Your task to perform on an android device: Go to wifi settings Image 0: 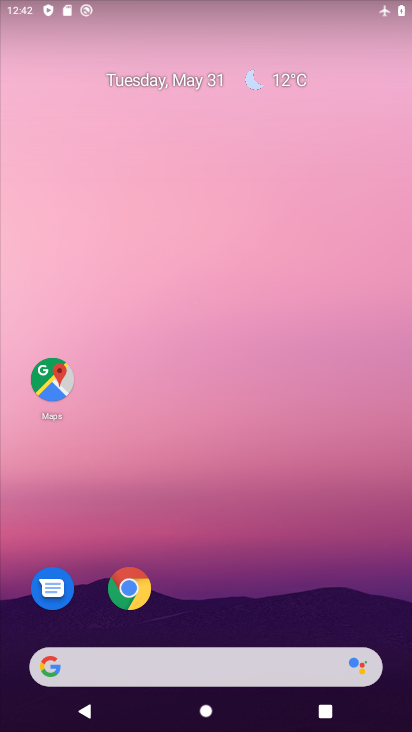
Step 0: drag from (383, 658) to (334, 67)
Your task to perform on an android device: Go to wifi settings Image 1: 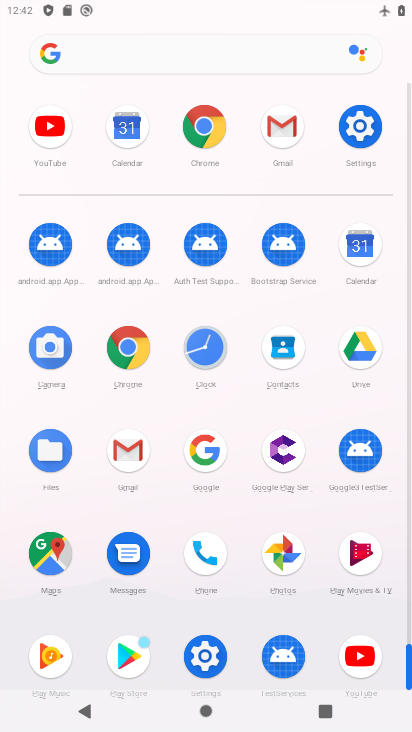
Step 1: click (367, 135)
Your task to perform on an android device: Go to wifi settings Image 2: 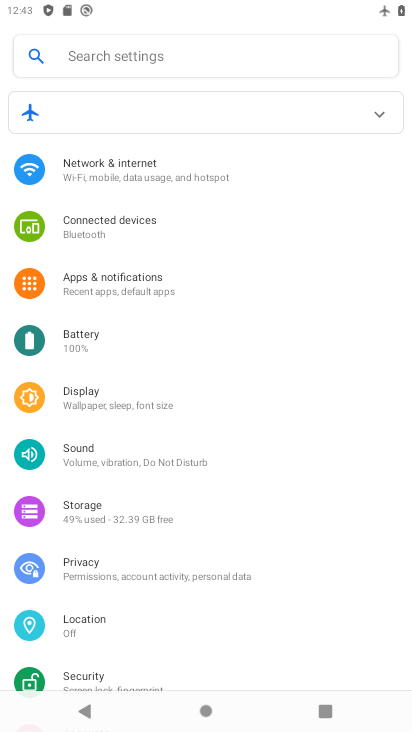
Step 2: click (112, 169)
Your task to perform on an android device: Go to wifi settings Image 3: 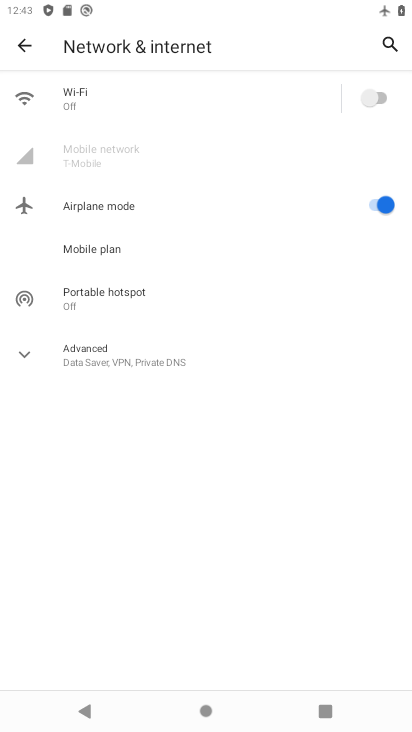
Step 3: click (152, 109)
Your task to perform on an android device: Go to wifi settings Image 4: 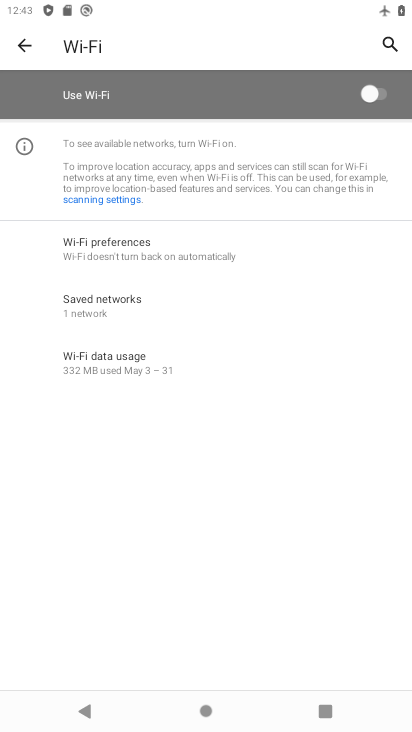
Step 4: task complete